Your task to perform on an android device: When is my next appointment? Image 0: 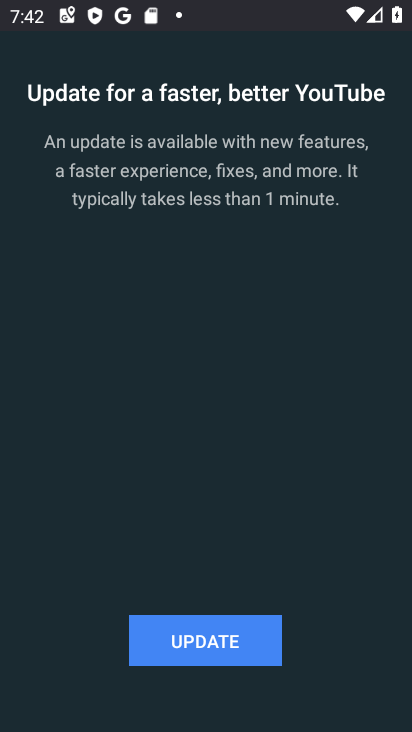
Step 0: press home button
Your task to perform on an android device: When is my next appointment? Image 1: 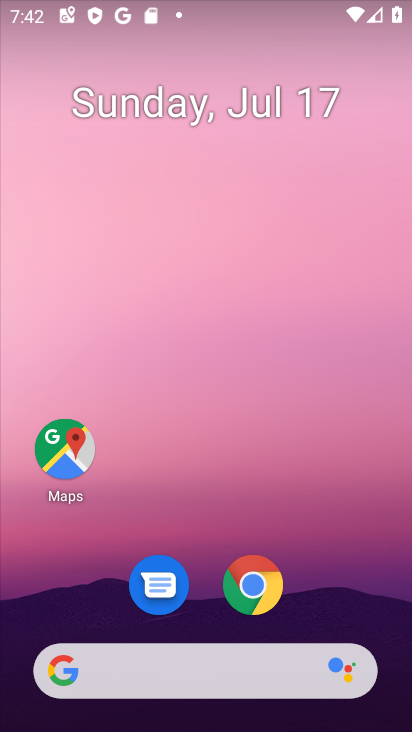
Step 1: drag from (325, 570) to (278, 24)
Your task to perform on an android device: When is my next appointment? Image 2: 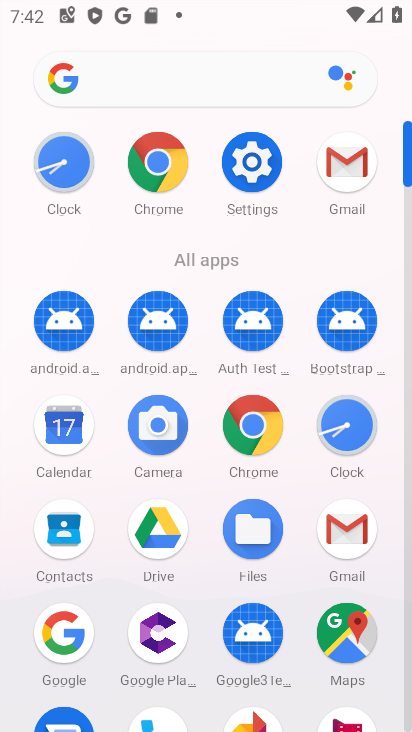
Step 2: click (58, 432)
Your task to perform on an android device: When is my next appointment? Image 3: 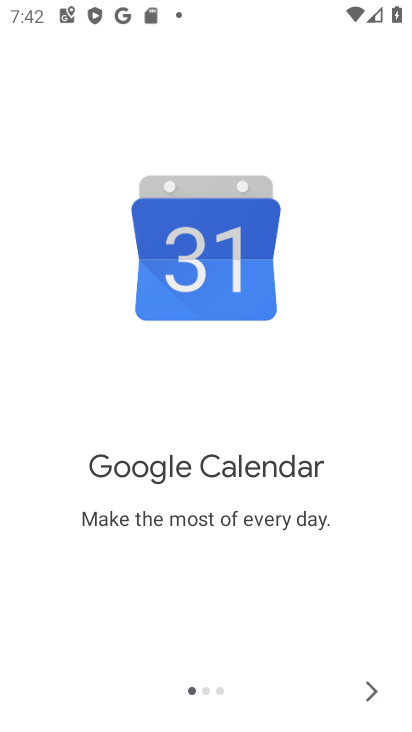
Step 3: click (367, 697)
Your task to perform on an android device: When is my next appointment? Image 4: 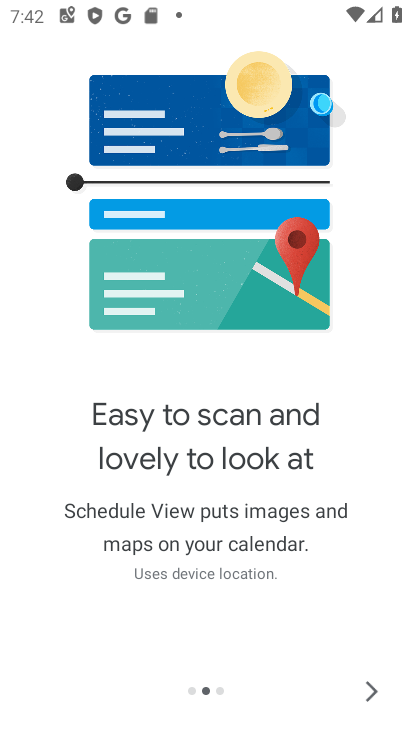
Step 4: click (367, 697)
Your task to perform on an android device: When is my next appointment? Image 5: 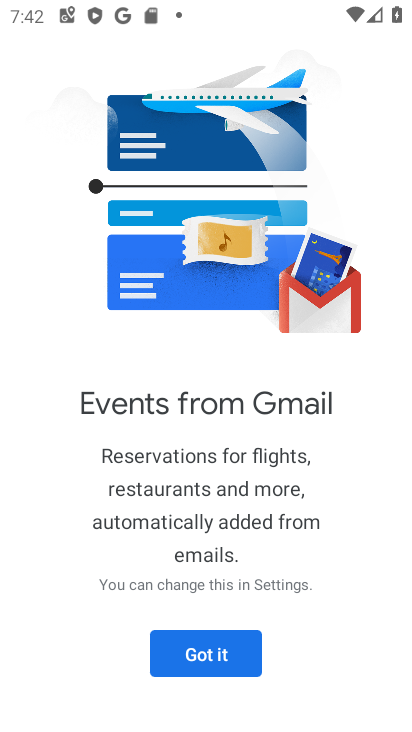
Step 5: click (229, 653)
Your task to perform on an android device: When is my next appointment? Image 6: 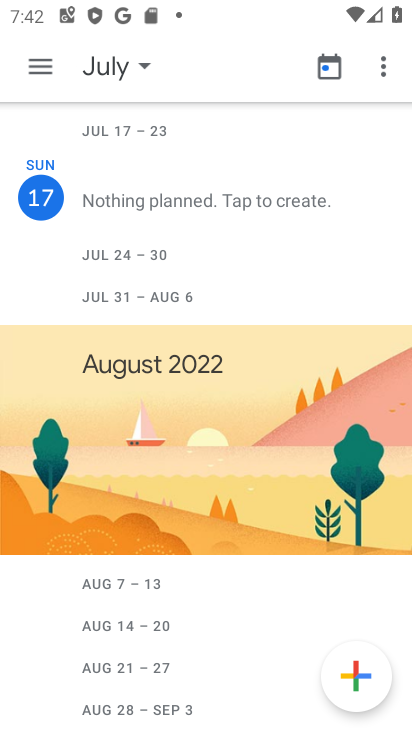
Step 6: task complete